Your task to perform on an android device: What's on my calendar today? Image 0: 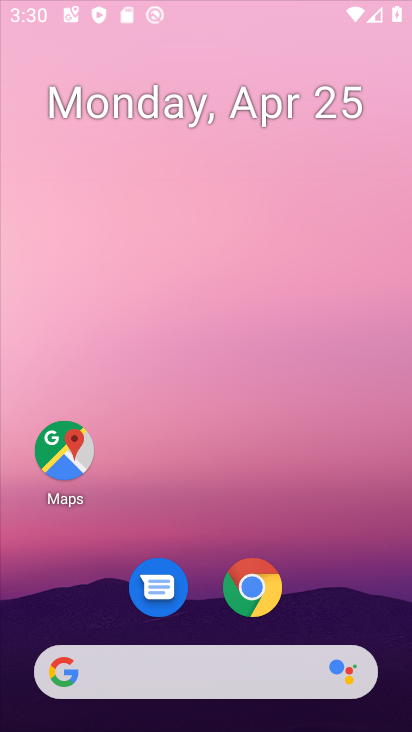
Step 0: drag from (203, 254) to (198, 135)
Your task to perform on an android device: What's on my calendar today? Image 1: 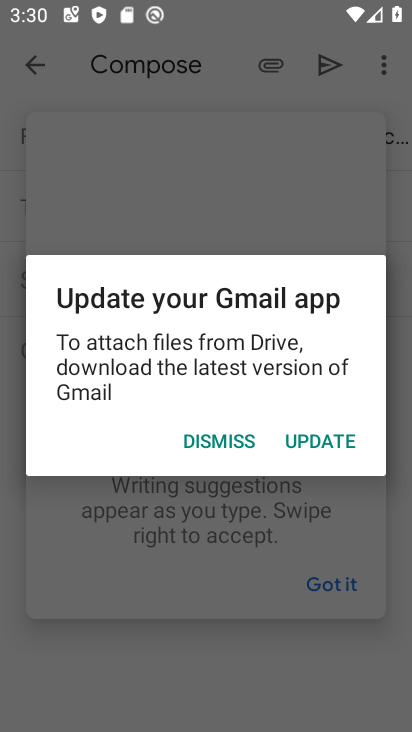
Step 1: press home button
Your task to perform on an android device: What's on my calendar today? Image 2: 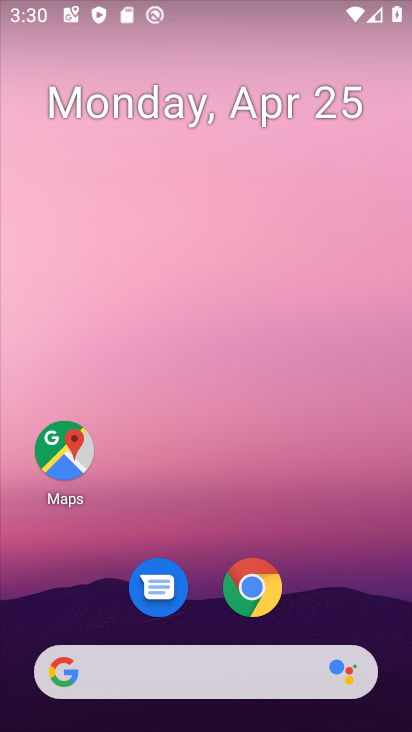
Step 2: drag from (217, 594) to (237, 162)
Your task to perform on an android device: What's on my calendar today? Image 3: 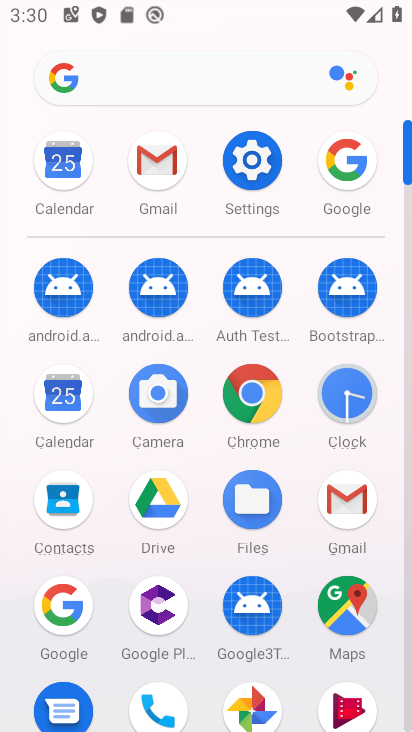
Step 3: click (67, 405)
Your task to perform on an android device: What's on my calendar today? Image 4: 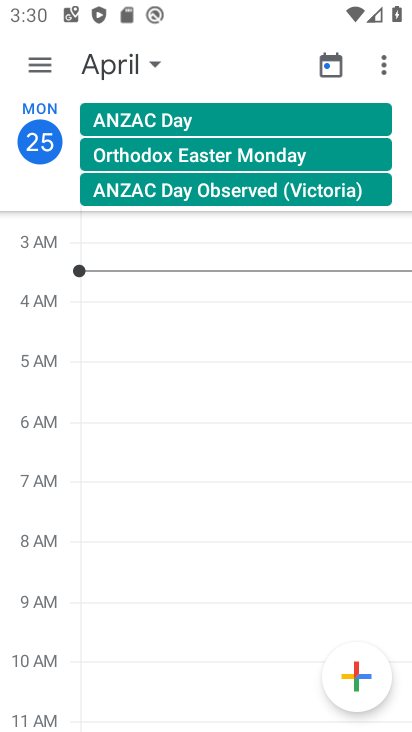
Step 4: click (142, 64)
Your task to perform on an android device: What's on my calendar today? Image 5: 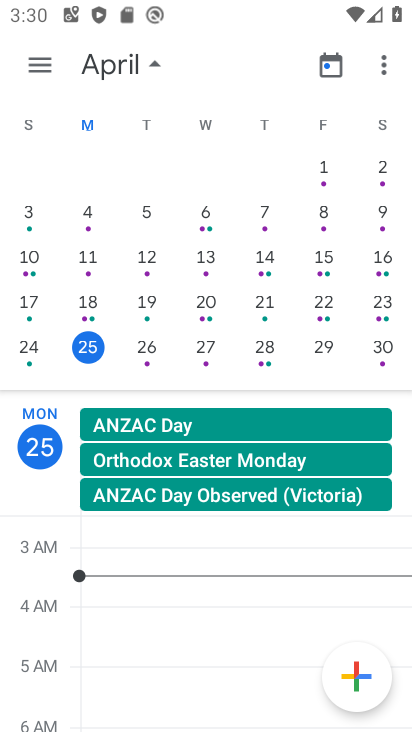
Step 5: click (85, 343)
Your task to perform on an android device: What's on my calendar today? Image 6: 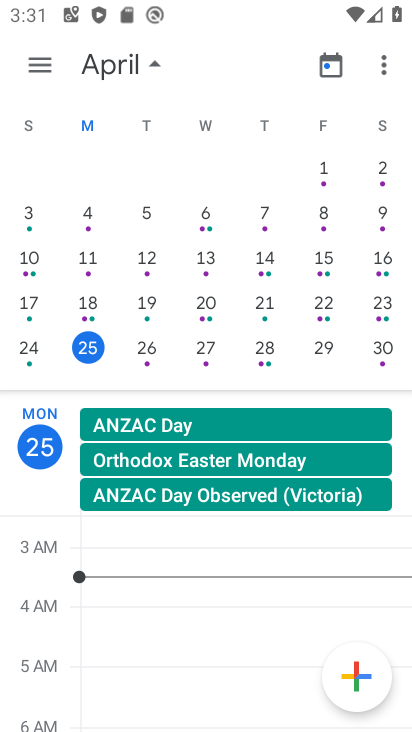
Step 6: task complete